Your task to perform on an android device: change the clock display to digital Image 0: 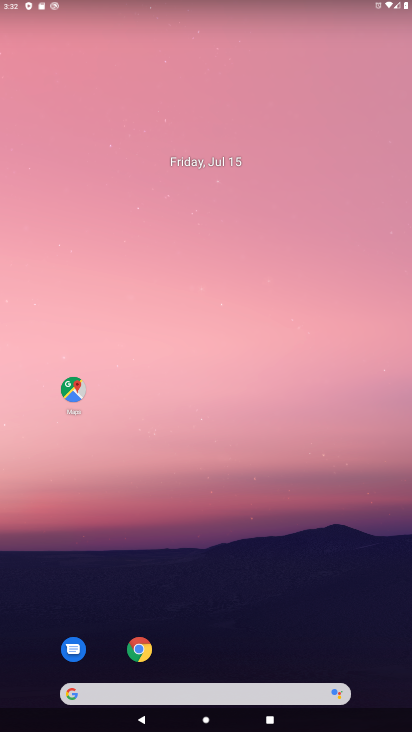
Step 0: drag from (332, 648) to (246, 196)
Your task to perform on an android device: change the clock display to digital Image 1: 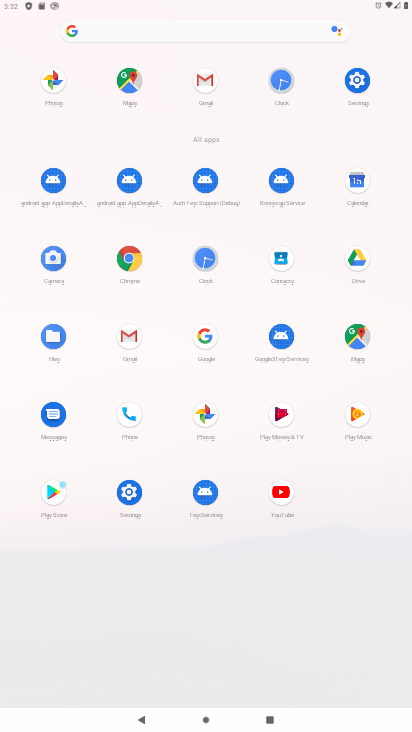
Step 1: click (282, 83)
Your task to perform on an android device: change the clock display to digital Image 2: 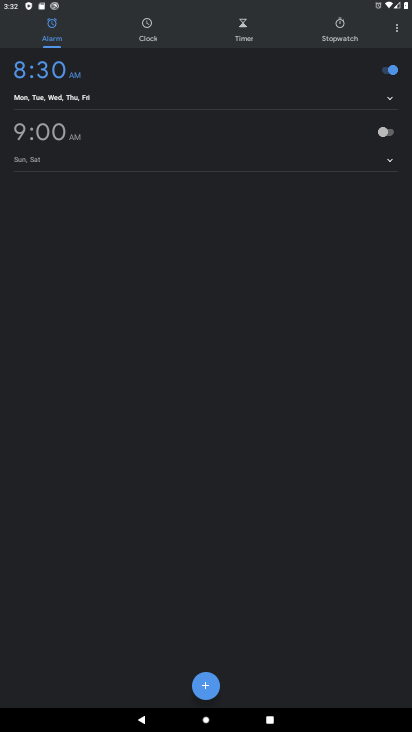
Step 2: click (403, 40)
Your task to perform on an android device: change the clock display to digital Image 3: 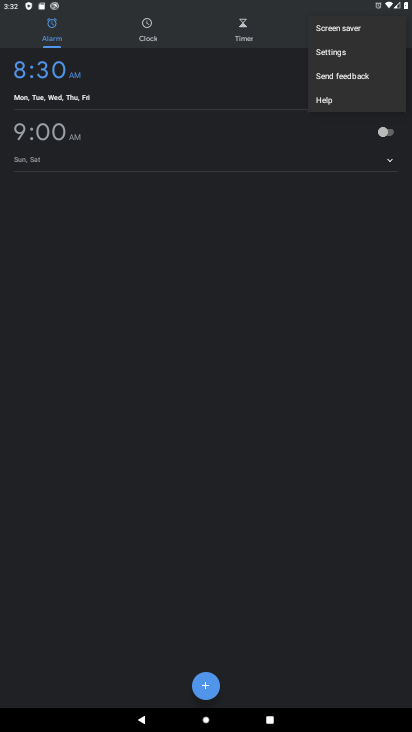
Step 3: click (335, 56)
Your task to perform on an android device: change the clock display to digital Image 4: 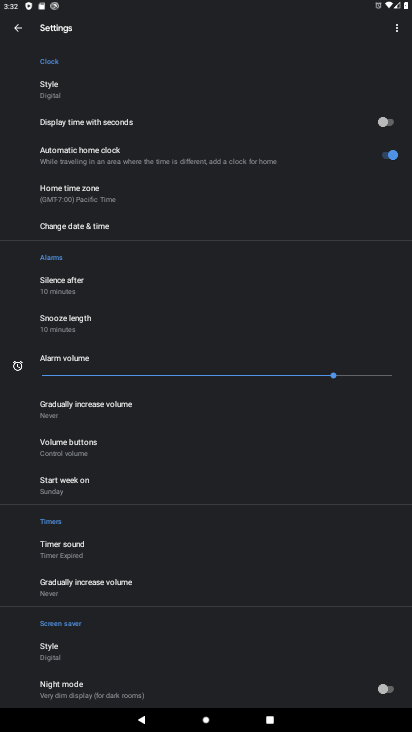
Step 4: task complete